Your task to perform on an android device: Find coffee shops on Maps Image 0: 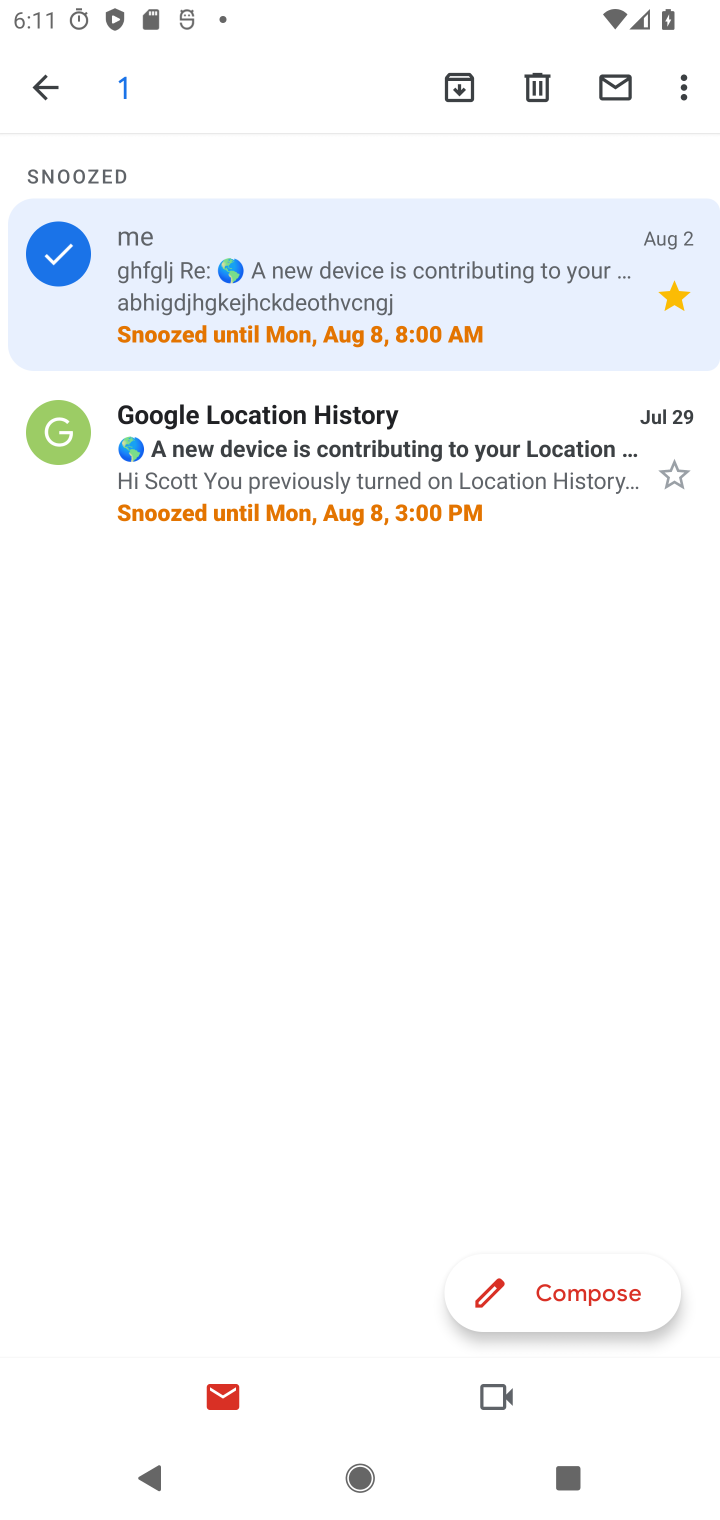
Step 0: press home button
Your task to perform on an android device: Find coffee shops on Maps Image 1: 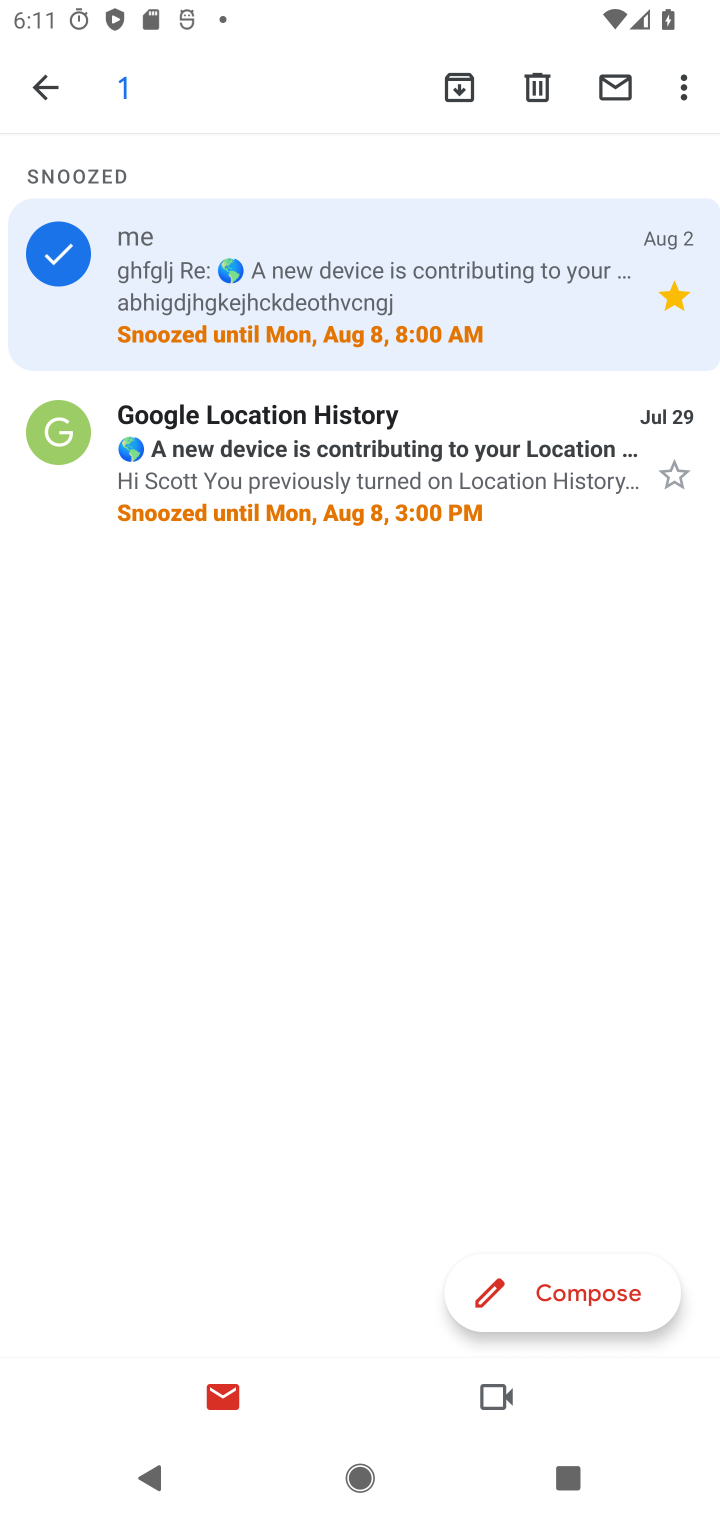
Step 1: press home button
Your task to perform on an android device: Find coffee shops on Maps Image 2: 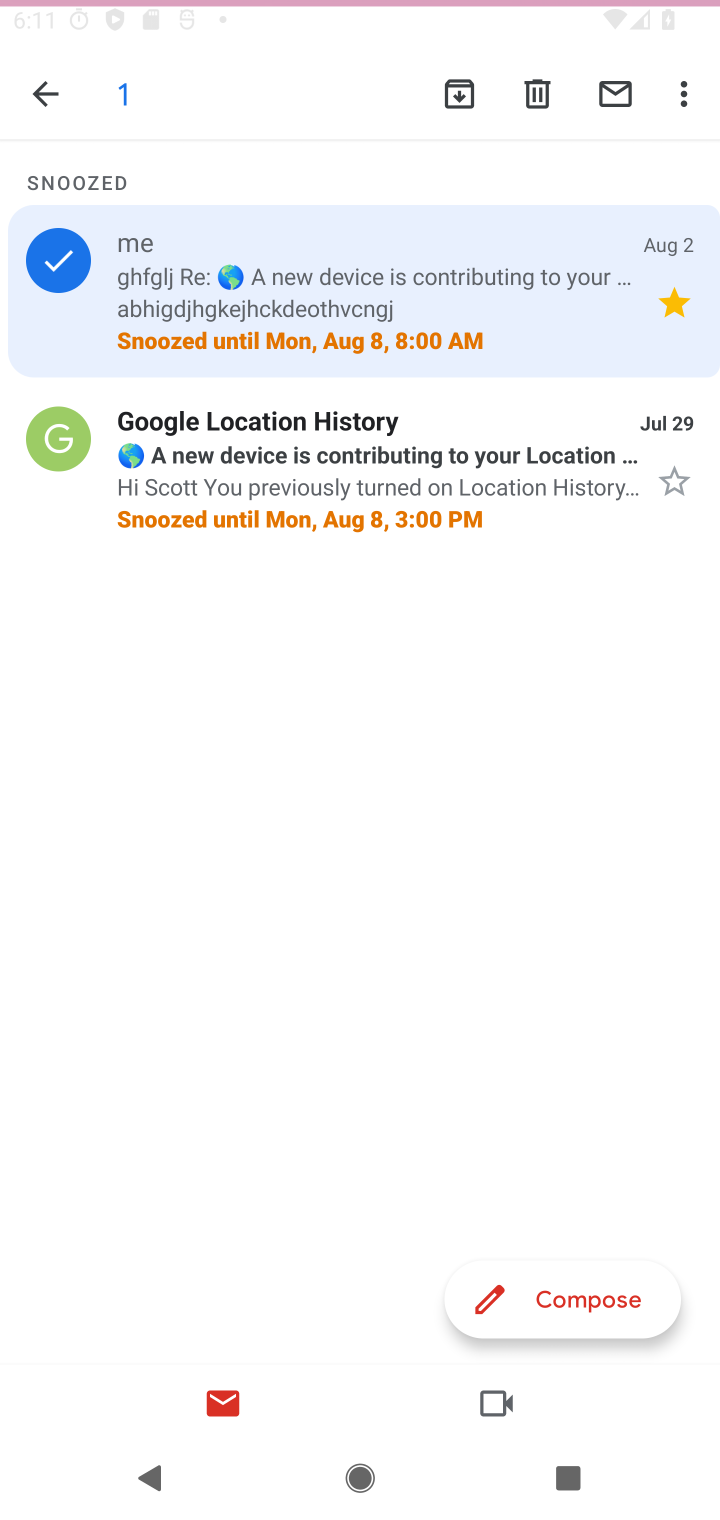
Step 2: press home button
Your task to perform on an android device: Find coffee shops on Maps Image 3: 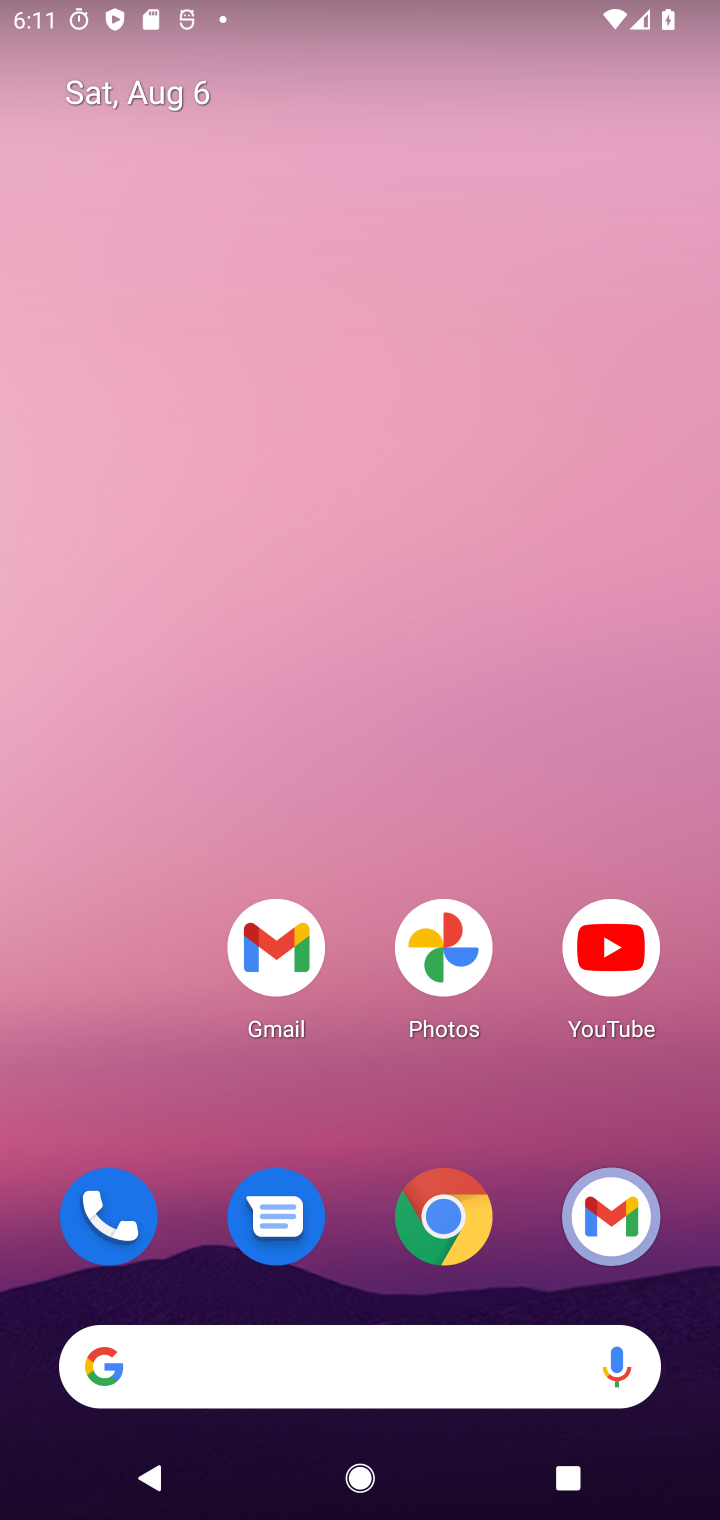
Step 3: drag from (364, 1102) to (476, 35)
Your task to perform on an android device: Find coffee shops on Maps Image 4: 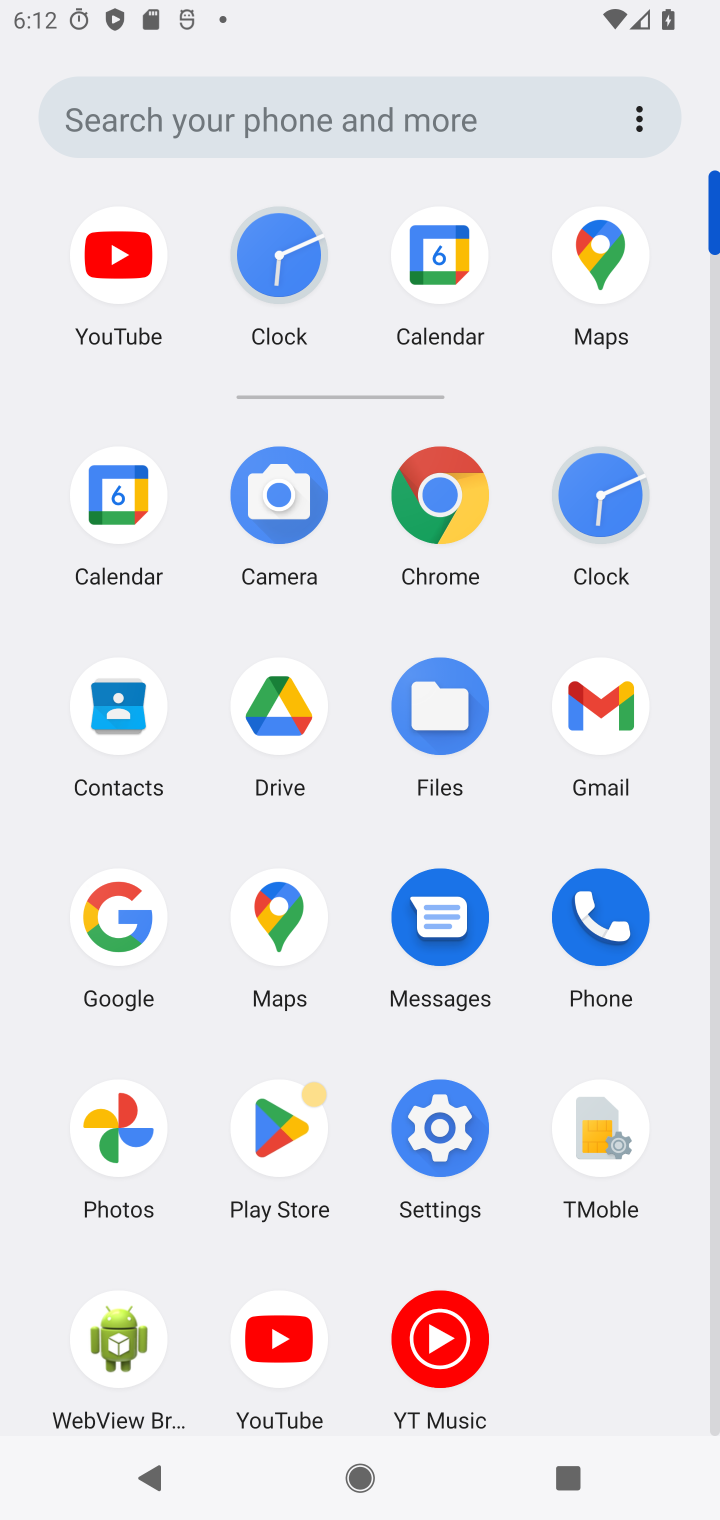
Step 4: click (276, 905)
Your task to perform on an android device: Find coffee shops on Maps Image 5: 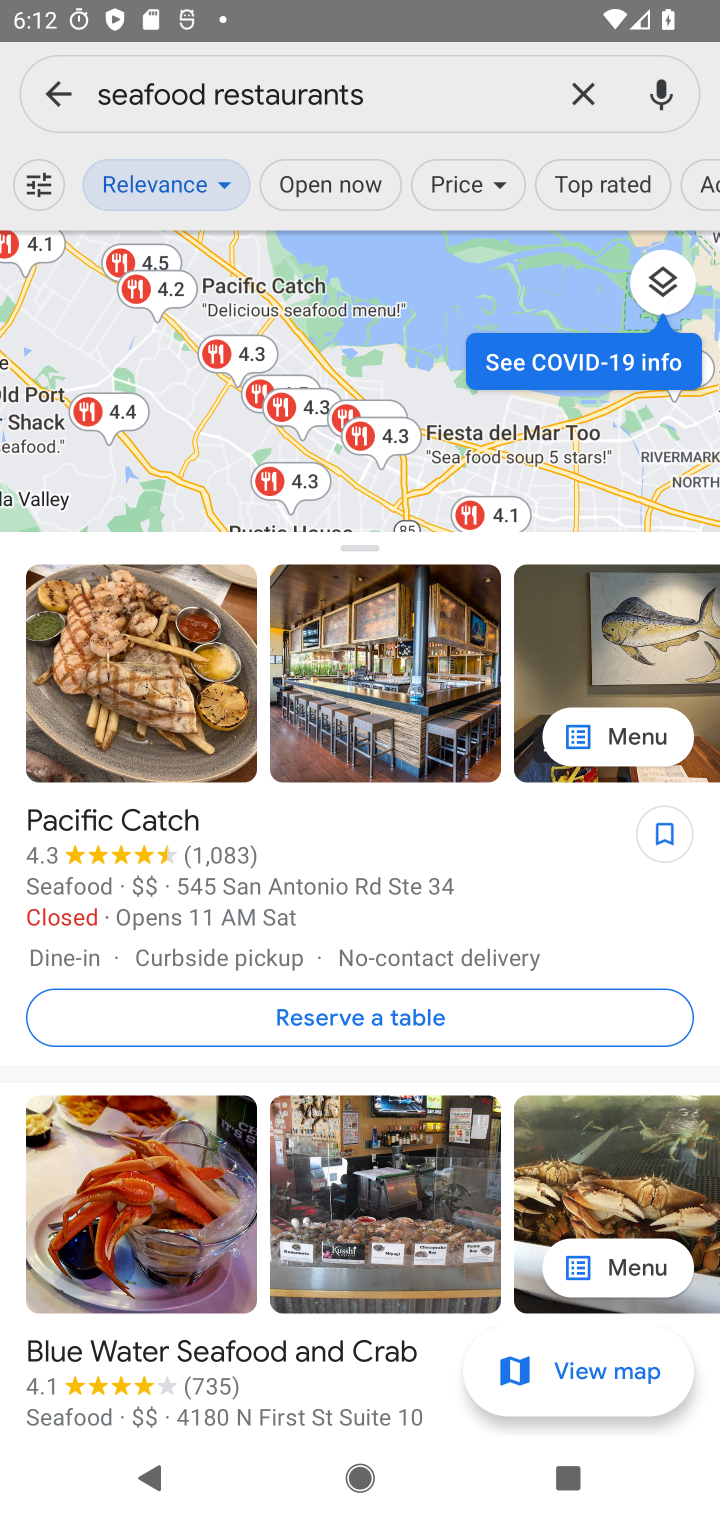
Step 5: click (412, 108)
Your task to perform on an android device: Find coffee shops on Maps Image 6: 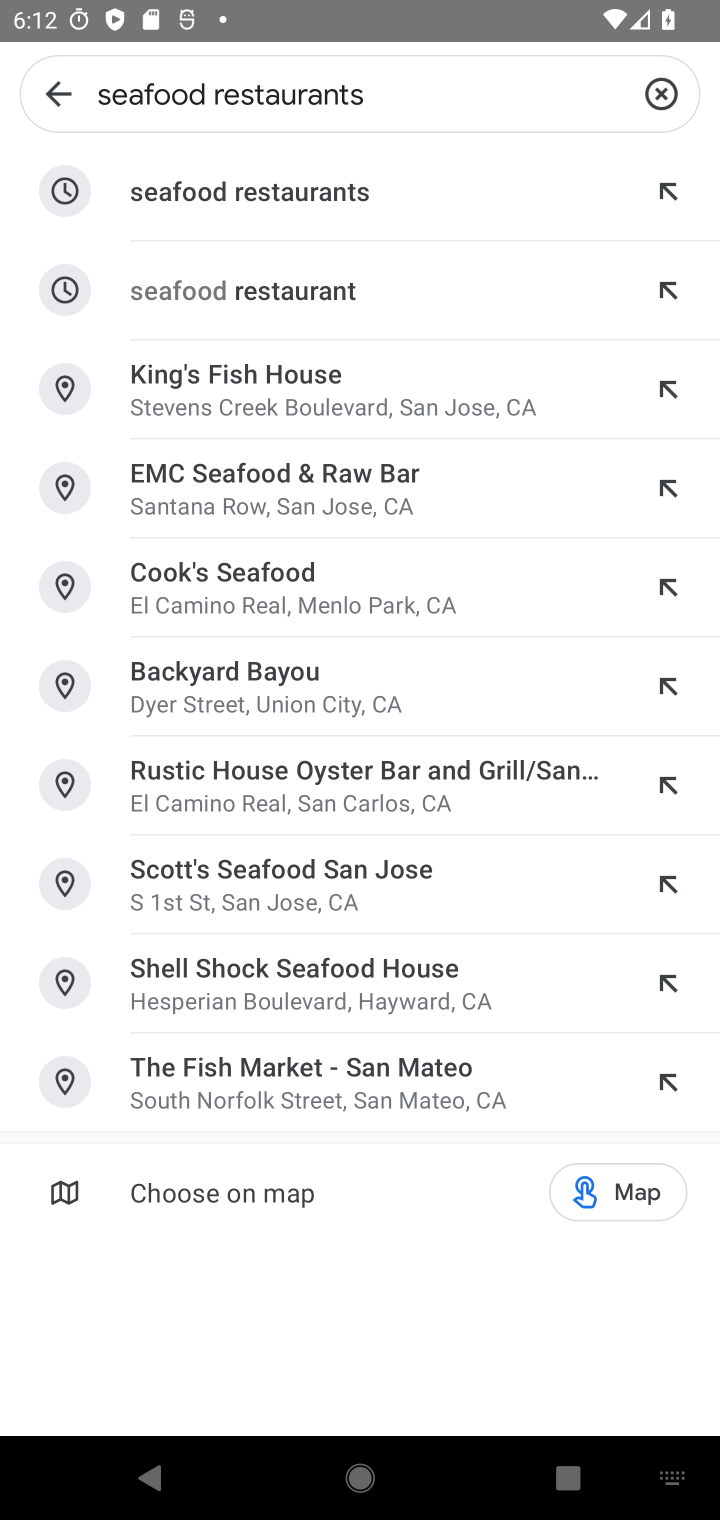
Step 6: click (657, 94)
Your task to perform on an android device: Find coffee shops on Maps Image 7: 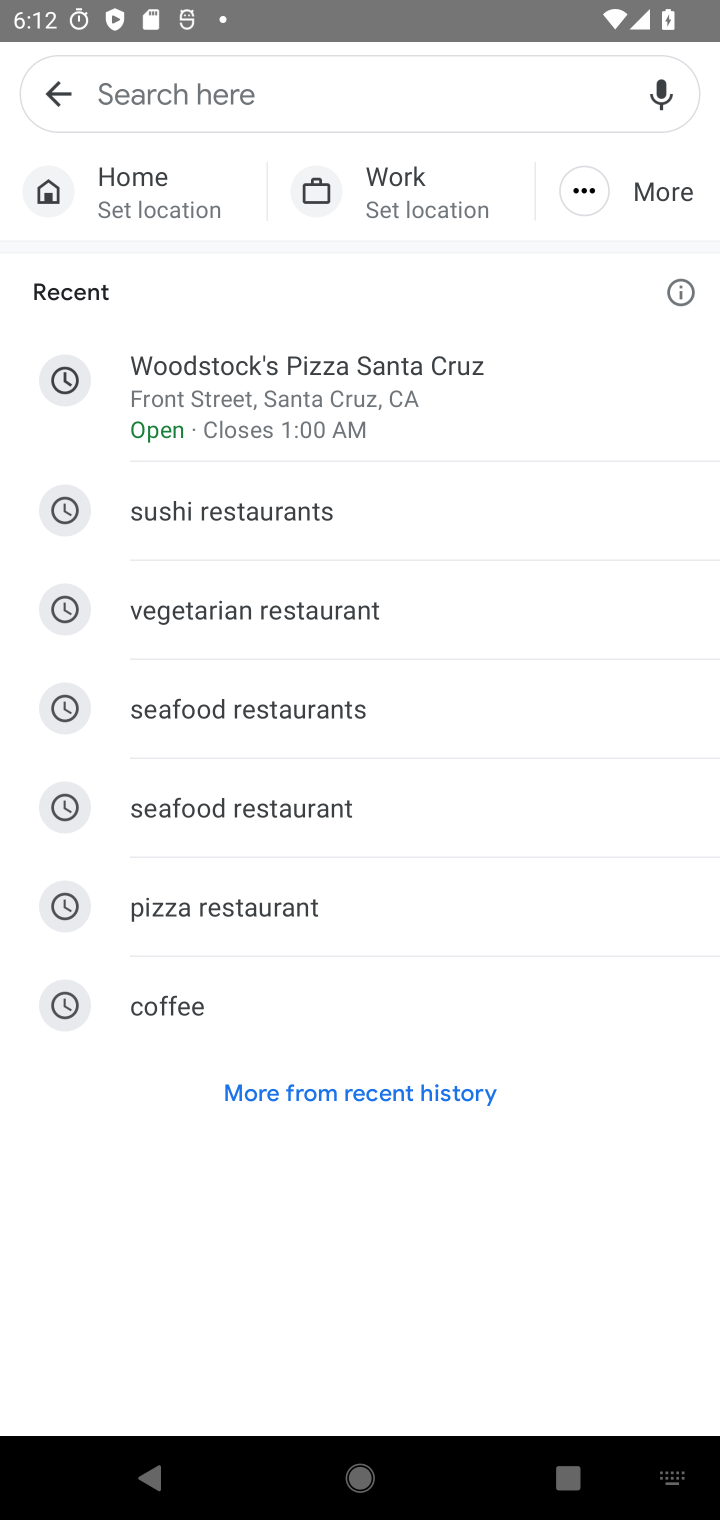
Step 7: type "coffee shops"
Your task to perform on an android device: Find coffee shops on Maps Image 8: 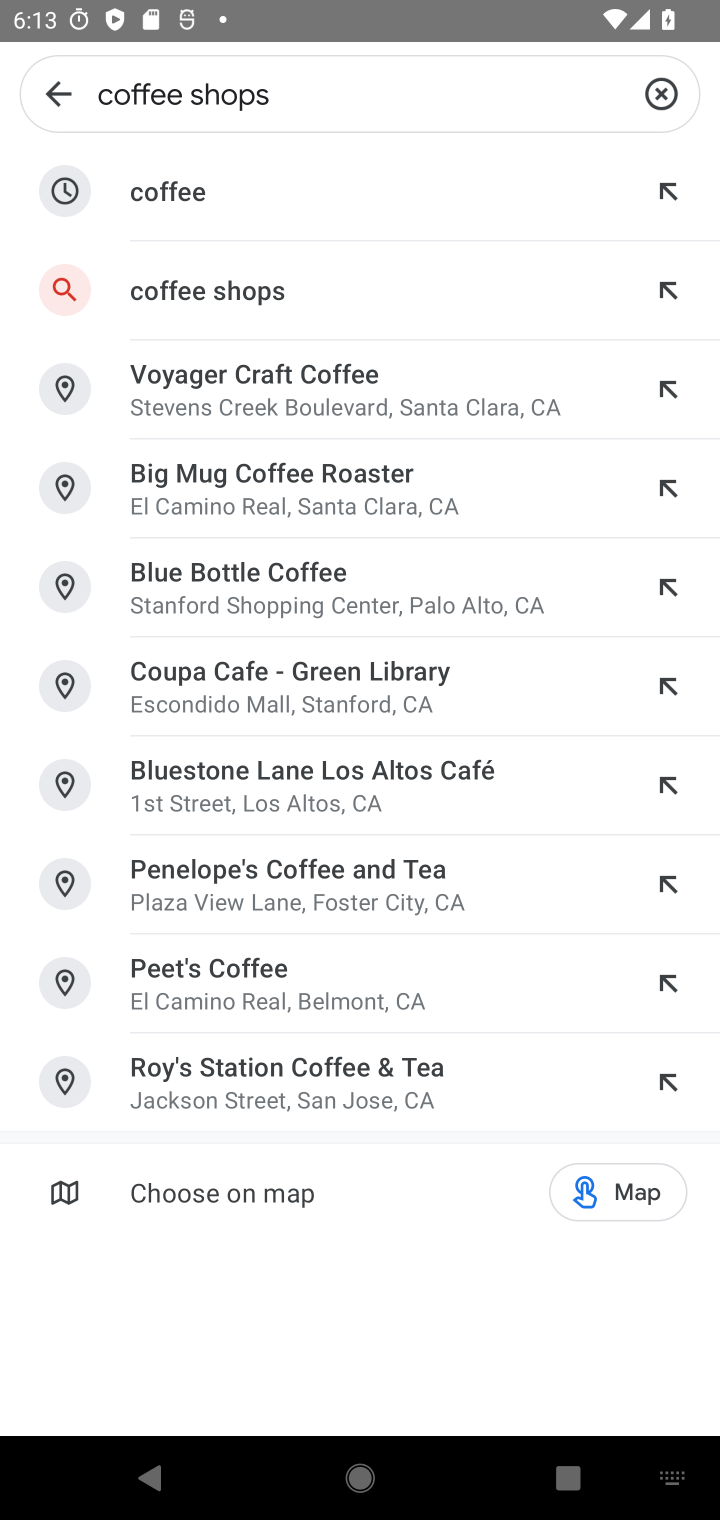
Step 8: click (286, 306)
Your task to perform on an android device: Find coffee shops on Maps Image 9: 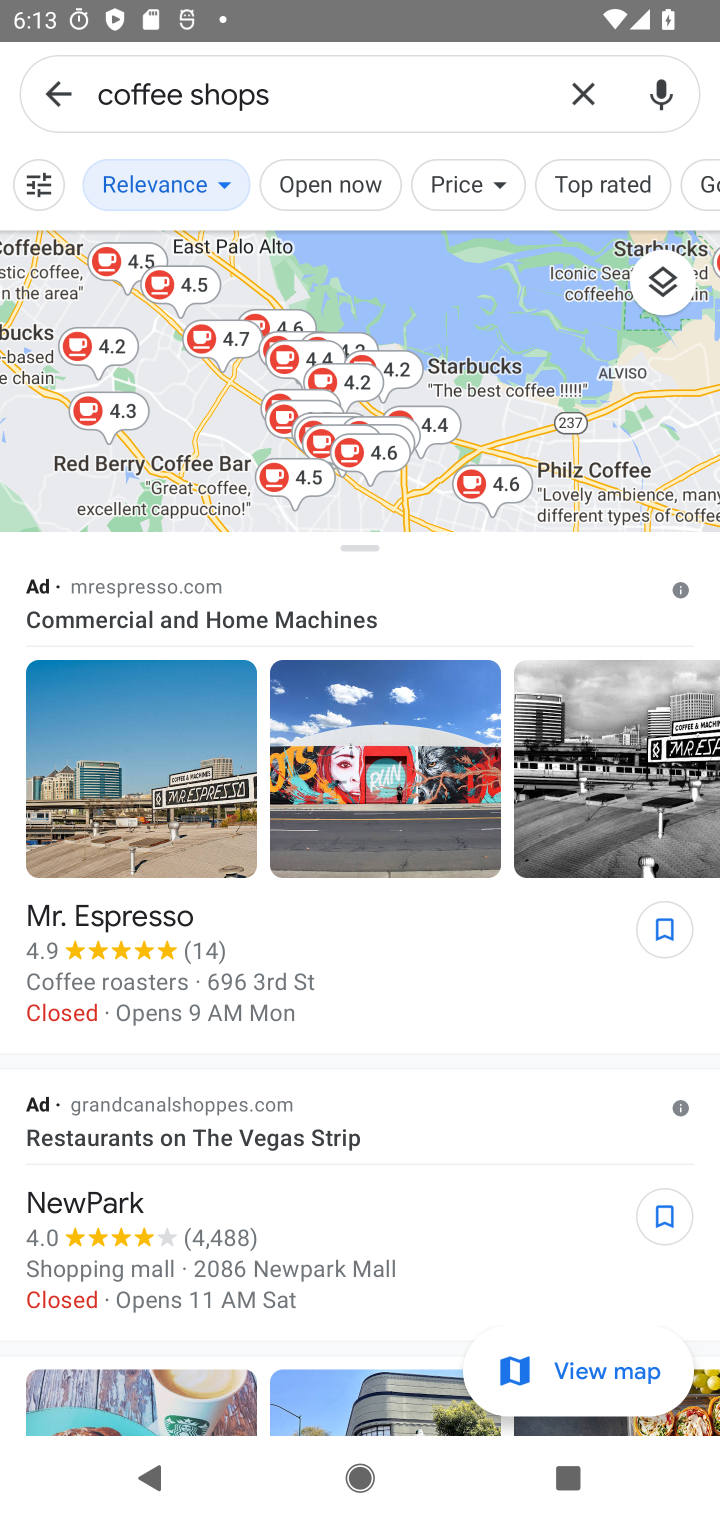
Step 9: task complete